Your task to perform on an android device: manage bookmarks in the chrome app Image 0: 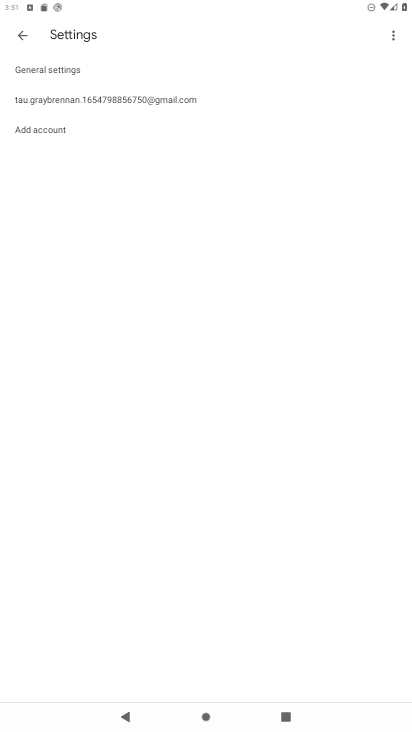
Step 0: press home button
Your task to perform on an android device: manage bookmarks in the chrome app Image 1: 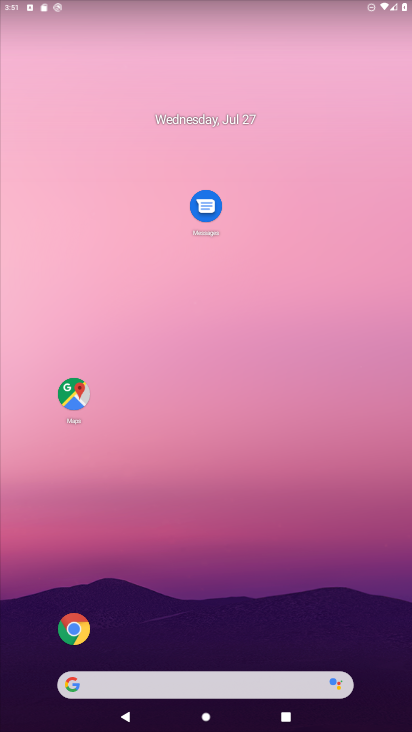
Step 1: click (66, 628)
Your task to perform on an android device: manage bookmarks in the chrome app Image 2: 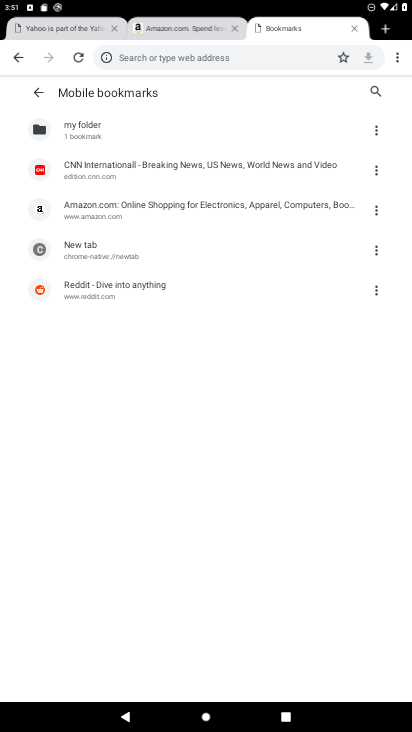
Step 2: click (379, 248)
Your task to perform on an android device: manage bookmarks in the chrome app Image 3: 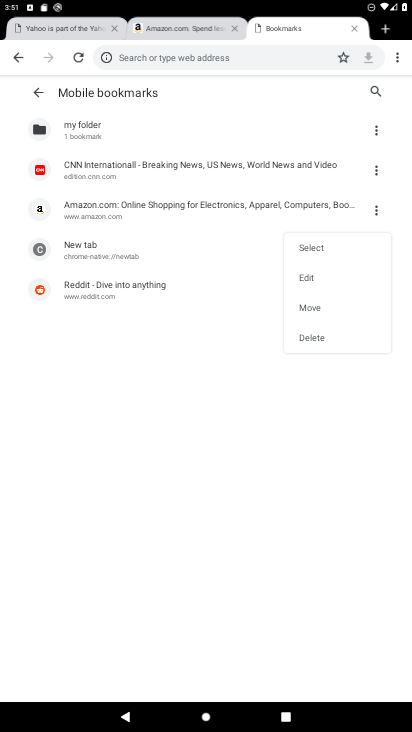
Step 3: click (303, 340)
Your task to perform on an android device: manage bookmarks in the chrome app Image 4: 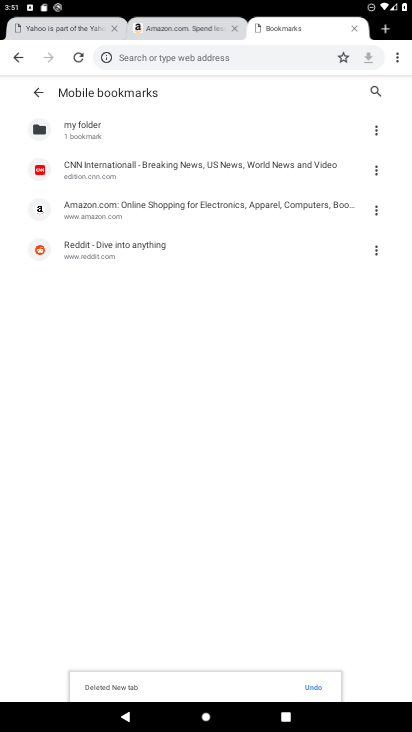
Step 4: task complete